Your task to perform on an android device: Open the map Image 0: 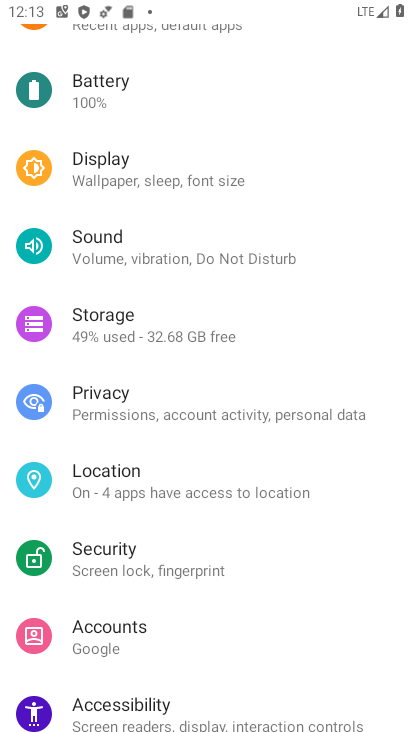
Step 0: press home button
Your task to perform on an android device: Open the map Image 1: 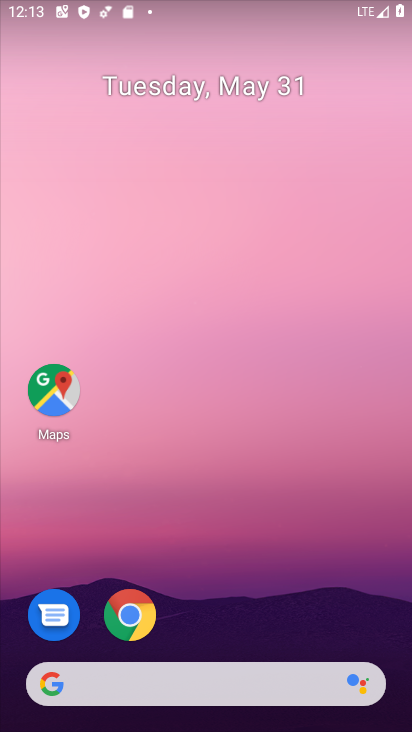
Step 1: click (53, 364)
Your task to perform on an android device: Open the map Image 2: 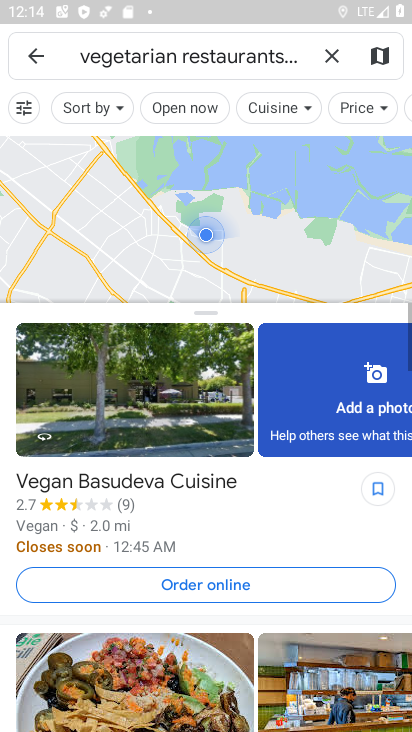
Step 2: click (32, 54)
Your task to perform on an android device: Open the map Image 3: 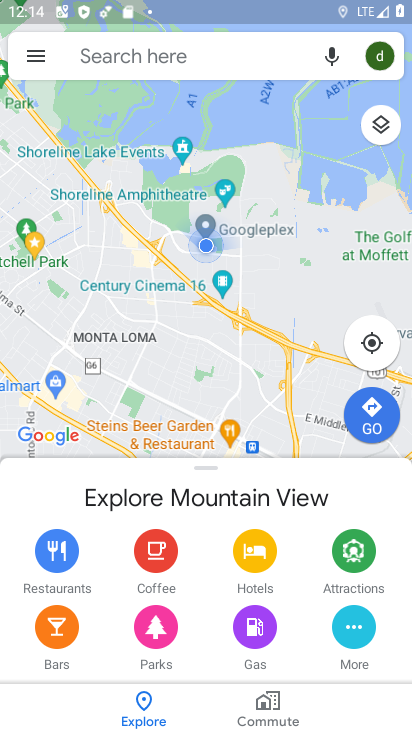
Step 3: task complete